Your task to perform on an android device: toggle pop-ups in chrome Image 0: 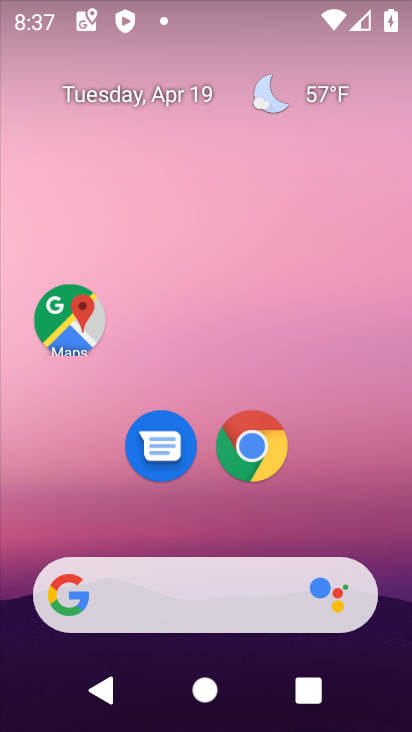
Step 0: click (246, 454)
Your task to perform on an android device: toggle pop-ups in chrome Image 1: 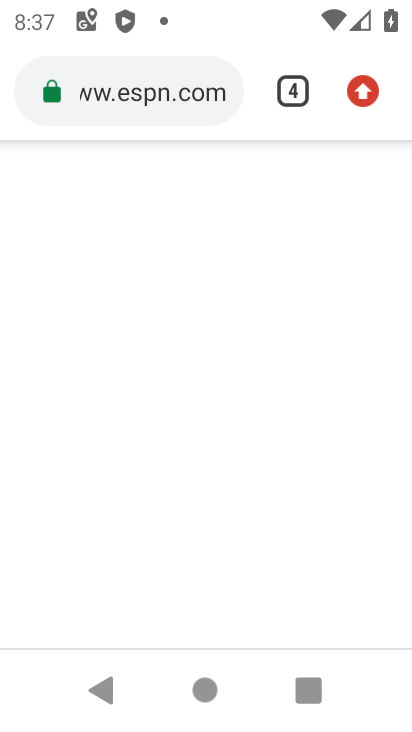
Step 1: click (369, 94)
Your task to perform on an android device: toggle pop-ups in chrome Image 2: 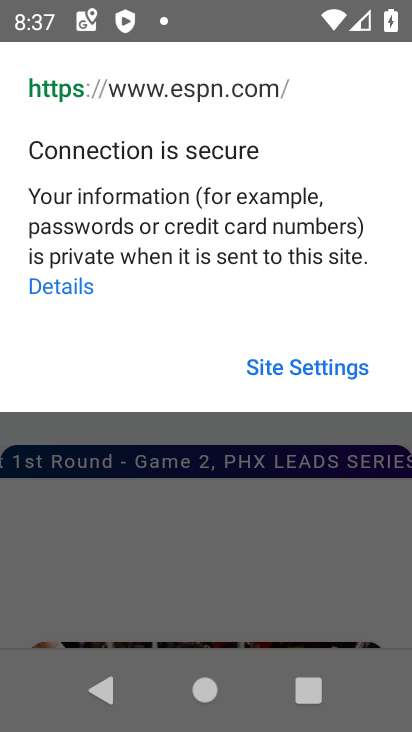
Step 2: click (297, 360)
Your task to perform on an android device: toggle pop-ups in chrome Image 3: 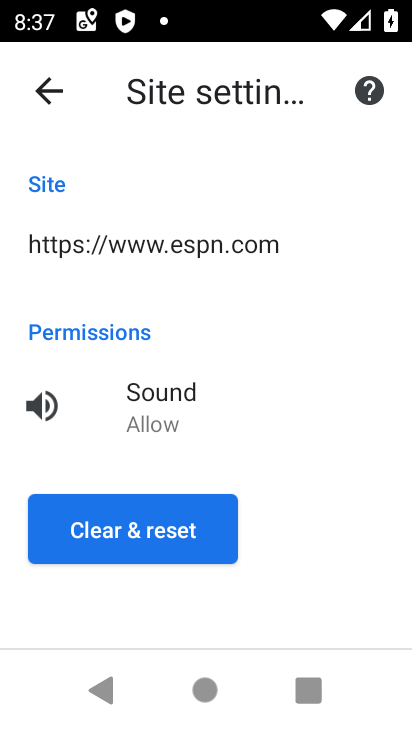
Step 3: click (46, 93)
Your task to perform on an android device: toggle pop-ups in chrome Image 4: 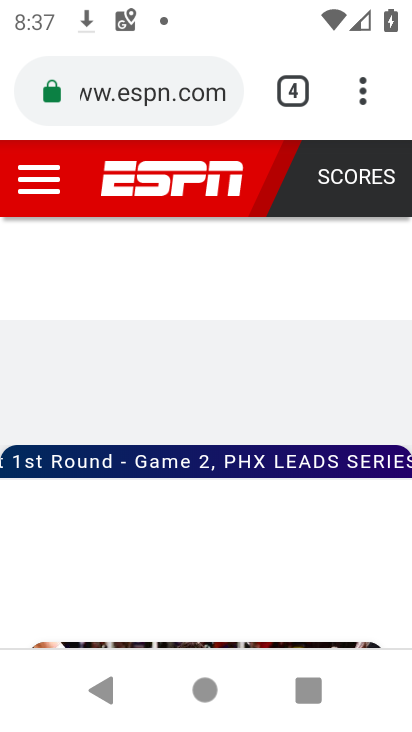
Step 4: click (350, 90)
Your task to perform on an android device: toggle pop-ups in chrome Image 5: 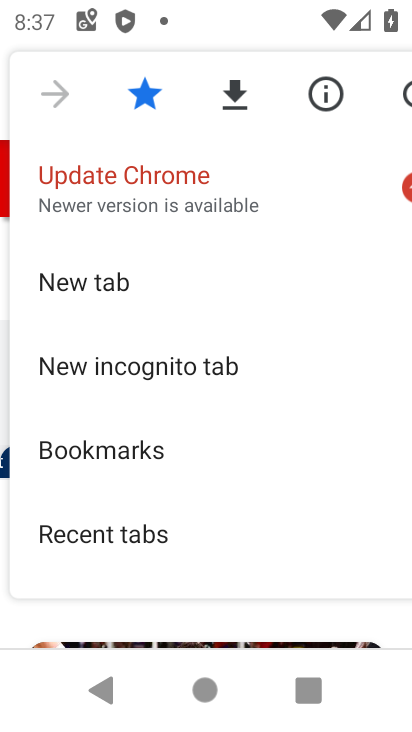
Step 5: drag from (166, 477) to (161, 147)
Your task to perform on an android device: toggle pop-ups in chrome Image 6: 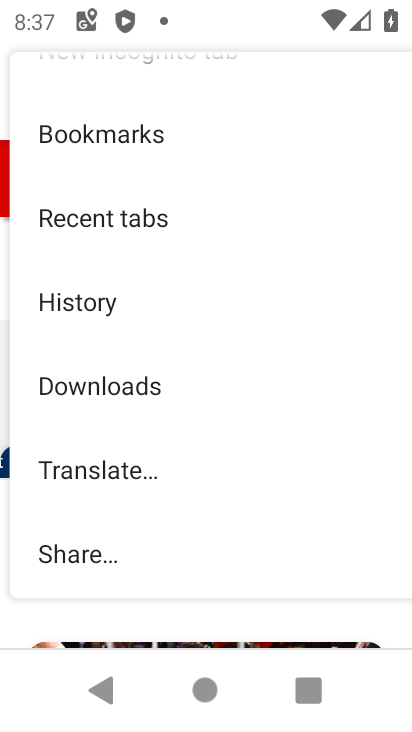
Step 6: drag from (128, 506) to (139, 229)
Your task to perform on an android device: toggle pop-ups in chrome Image 7: 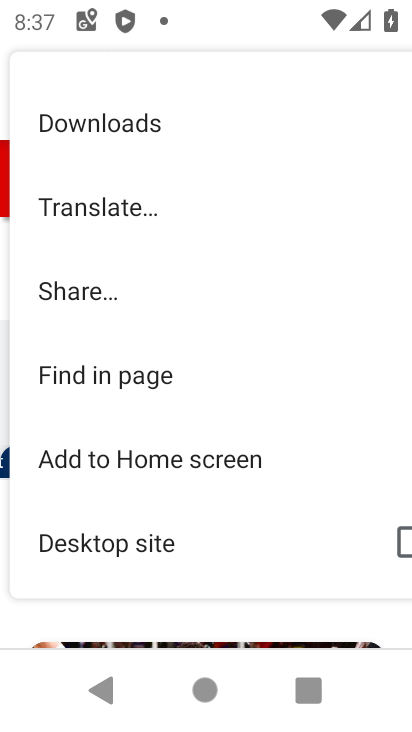
Step 7: drag from (116, 542) to (113, 259)
Your task to perform on an android device: toggle pop-ups in chrome Image 8: 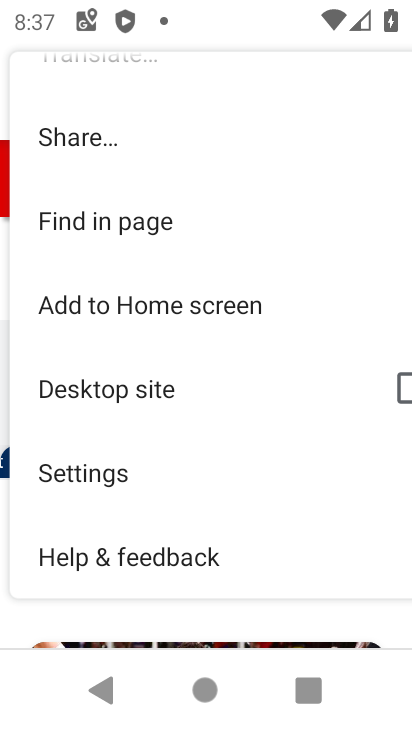
Step 8: click (75, 469)
Your task to perform on an android device: toggle pop-ups in chrome Image 9: 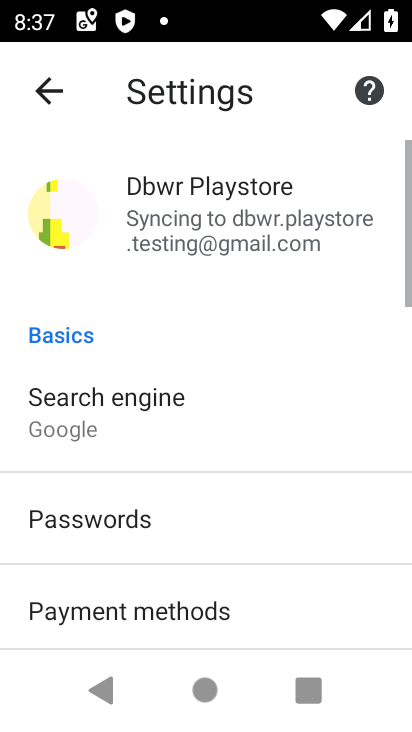
Step 9: drag from (105, 564) to (116, 229)
Your task to perform on an android device: toggle pop-ups in chrome Image 10: 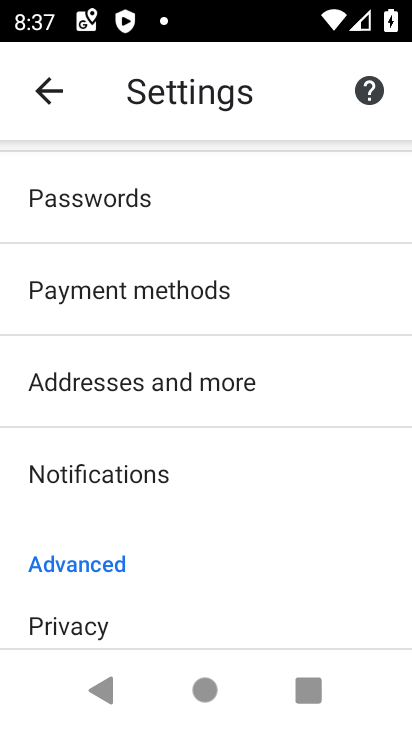
Step 10: drag from (114, 544) to (135, 206)
Your task to perform on an android device: toggle pop-ups in chrome Image 11: 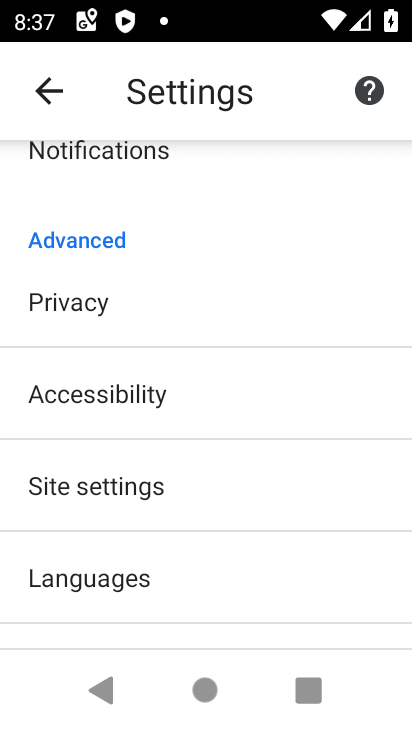
Step 11: click (88, 485)
Your task to perform on an android device: toggle pop-ups in chrome Image 12: 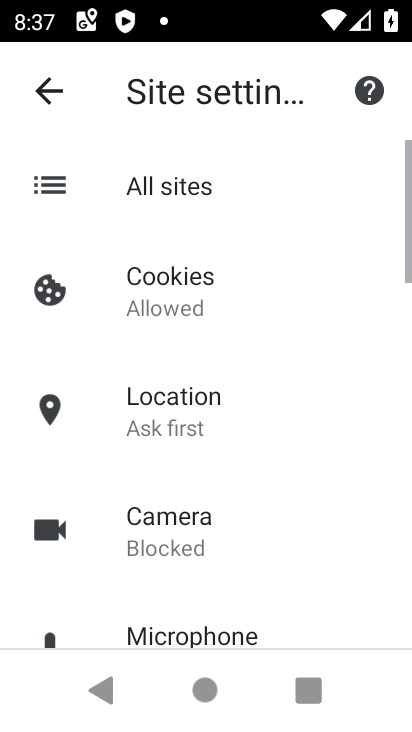
Step 12: drag from (162, 593) to (169, 220)
Your task to perform on an android device: toggle pop-ups in chrome Image 13: 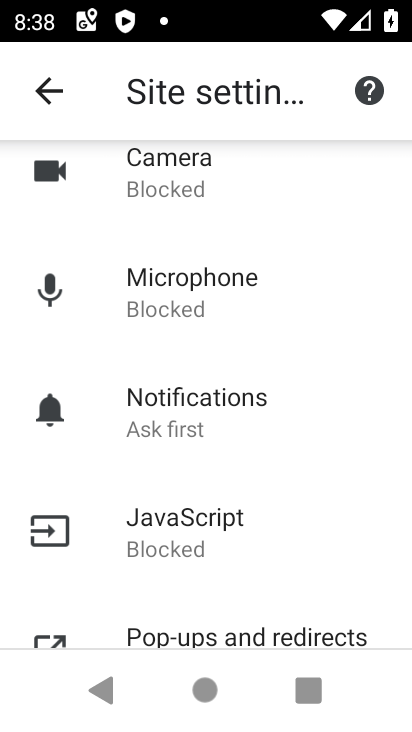
Step 13: click (179, 634)
Your task to perform on an android device: toggle pop-ups in chrome Image 14: 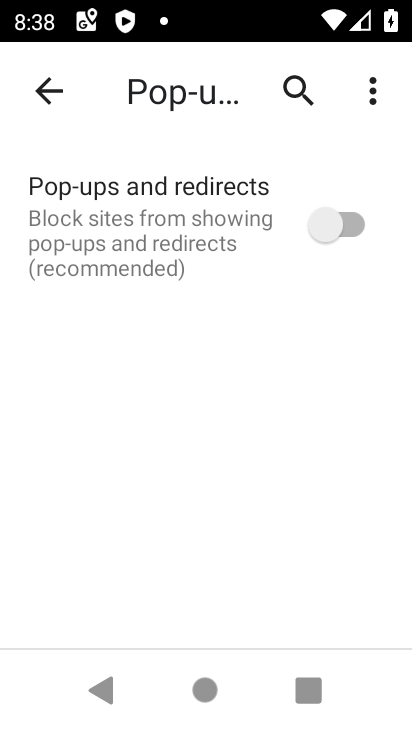
Step 14: click (353, 223)
Your task to perform on an android device: toggle pop-ups in chrome Image 15: 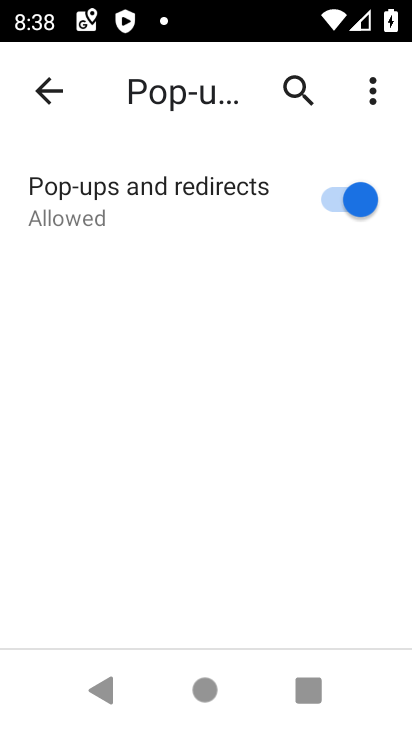
Step 15: task complete